Your task to perform on an android device: turn pop-ups off in chrome Image 0: 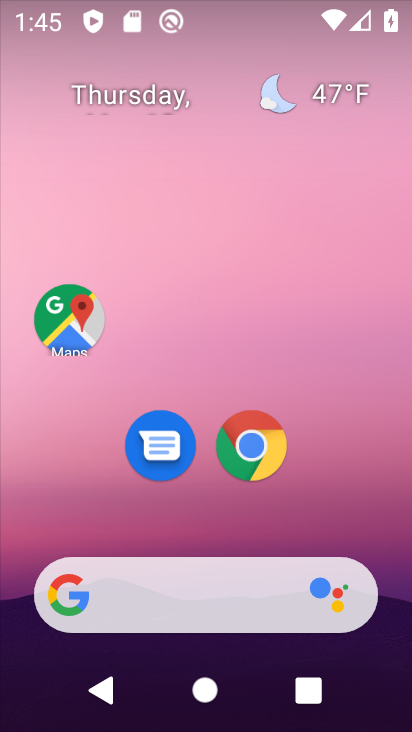
Step 0: click (255, 442)
Your task to perform on an android device: turn pop-ups off in chrome Image 1: 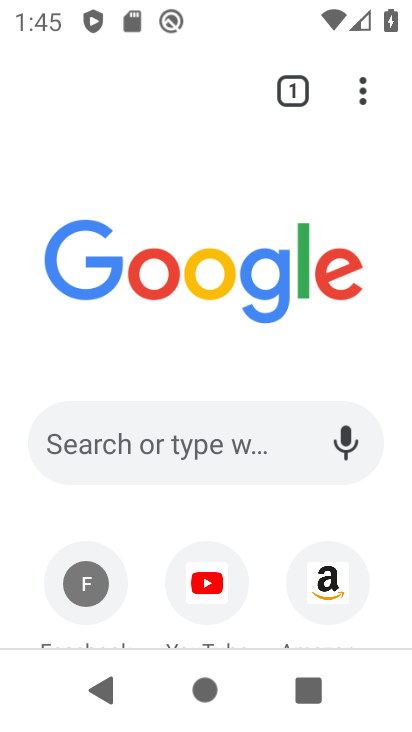
Step 1: drag from (357, 102) to (170, 470)
Your task to perform on an android device: turn pop-ups off in chrome Image 2: 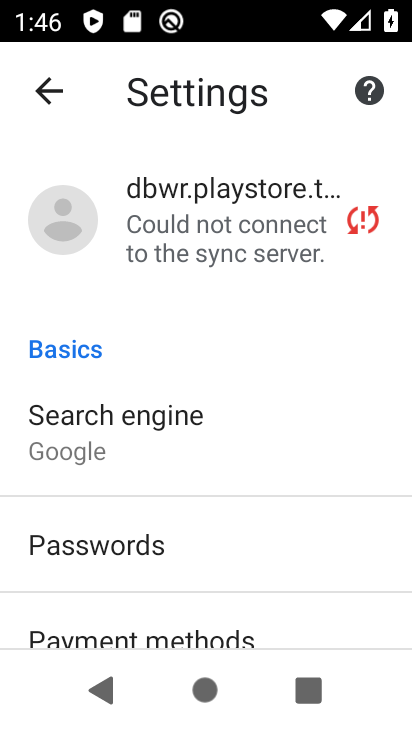
Step 2: drag from (174, 603) to (216, 367)
Your task to perform on an android device: turn pop-ups off in chrome Image 3: 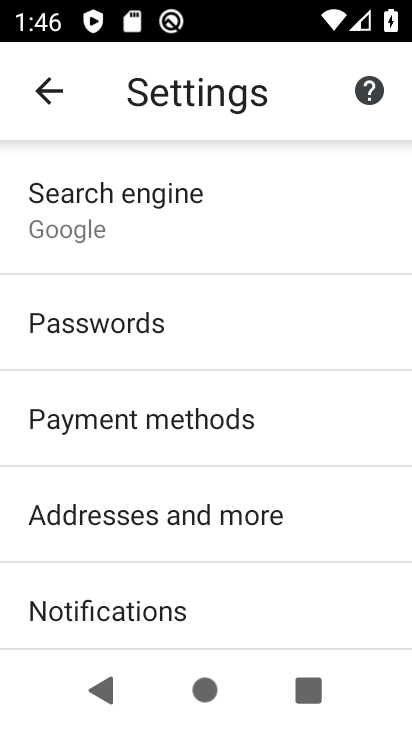
Step 3: drag from (228, 428) to (270, 264)
Your task to perform on an android device: turn pop-ups off in chrome Image 4: 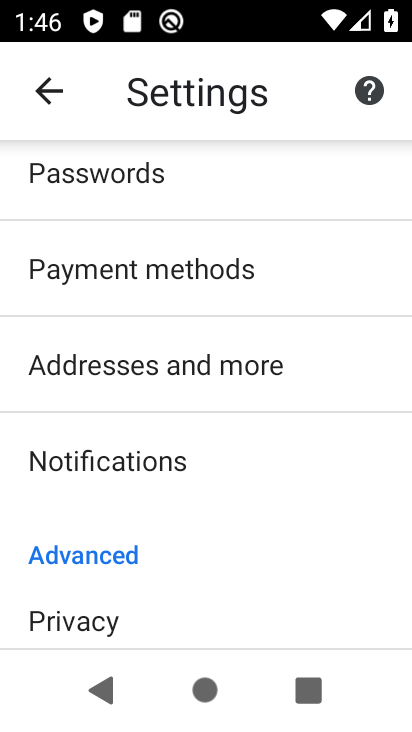
Step 4: drag from (208, 550) to (268, 310)
Your task to perform on an android device: turn pop-ups off in chrome Image 5: 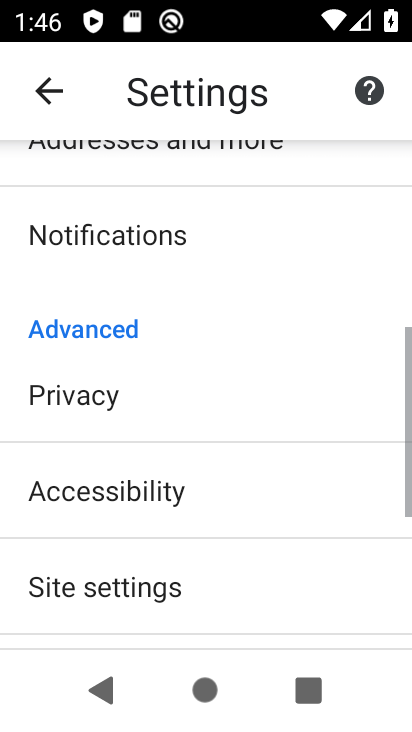
Step 5: drag from (229, 567) to (277, 409)
Your task to perform on an android device: turn pop-ups off in chrome Image 6: 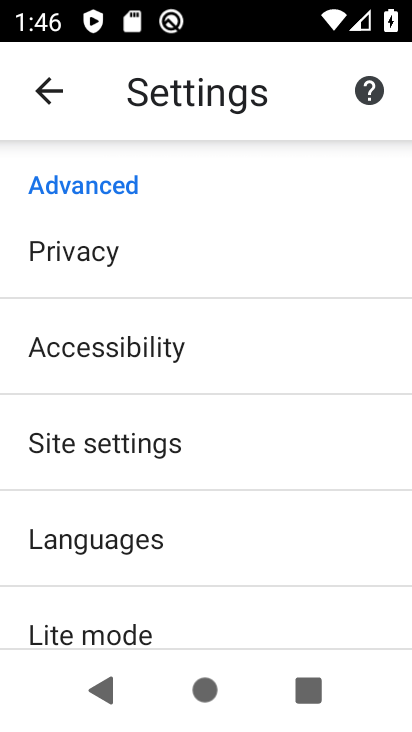
Step 6: click (193, 460)
Your task to perform on an android device: turn pop-ups off in chrome Image 7: 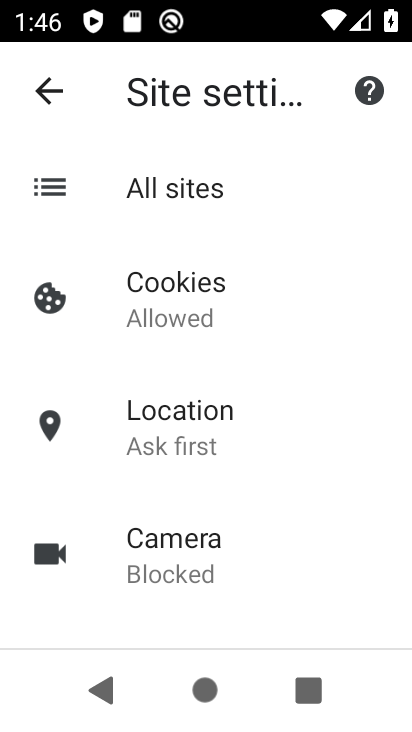
Step 7: drag from (206, 605) to (278, 286)
Your task to perform on an android device: turn pop-ups off in chrome Image 8: 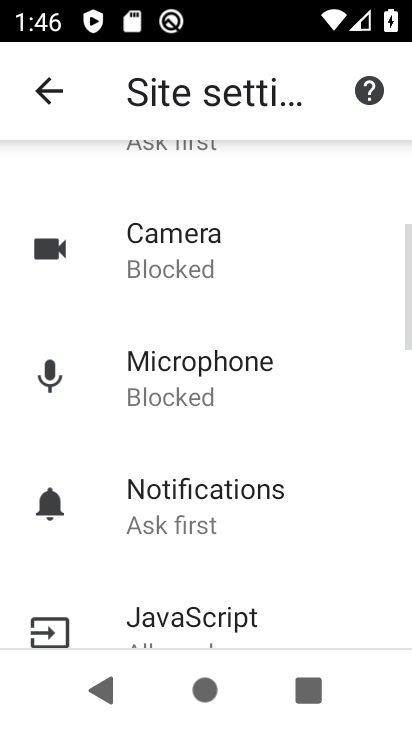
Step 8: drag from (241, 566) to (256, 301)
Your task to perform on an android device: turn pop-ups off in chrome Image 9: 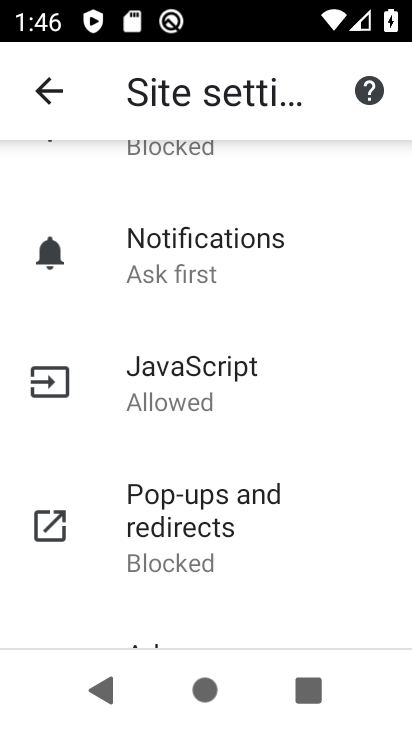
Step 9: click (236, 513)
Your task to perform on an android device: turn pop-ups off in chrome Image 10: 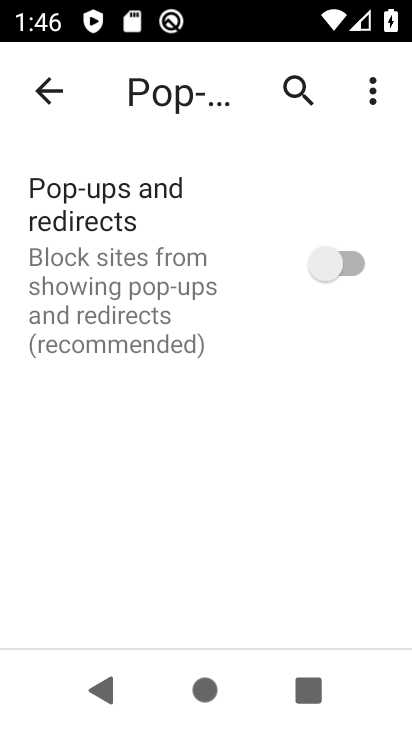
Step 10: task complete